Your task to perform on an android device: turn on notifications settings in the gmail app Image 0: 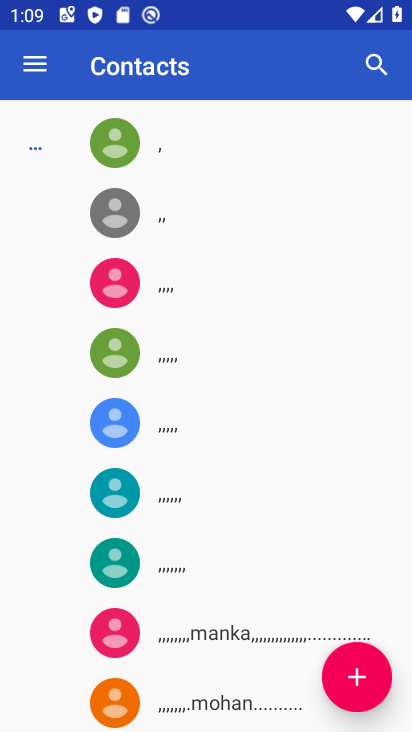
Step 0: press home button
Your task to perform on an android device: turn on notifications settings in the gmail app Image 1: 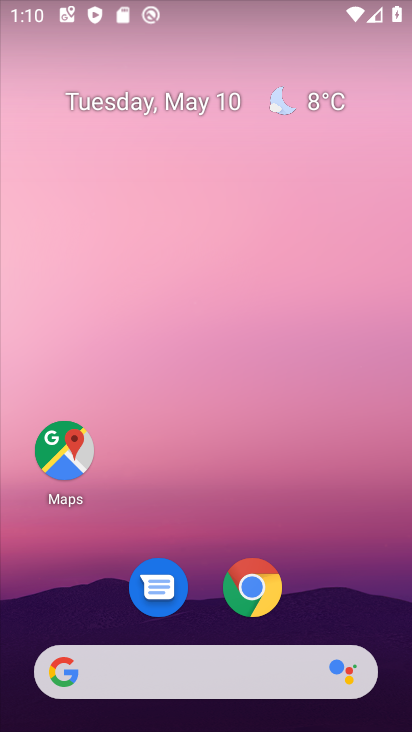
Step 1: drag from (311, 552) to (245, 152)
Your task to perform on an android device: turn on notifications settings in the gmail app Image 2: 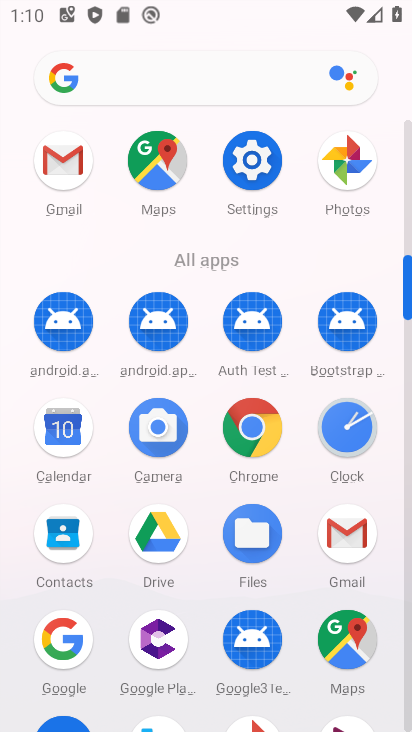
Step 2: drag from (359, 523) to (286, 329)
Your task to perform on an android device: turn on notifications settings in the gmail app Image 3: 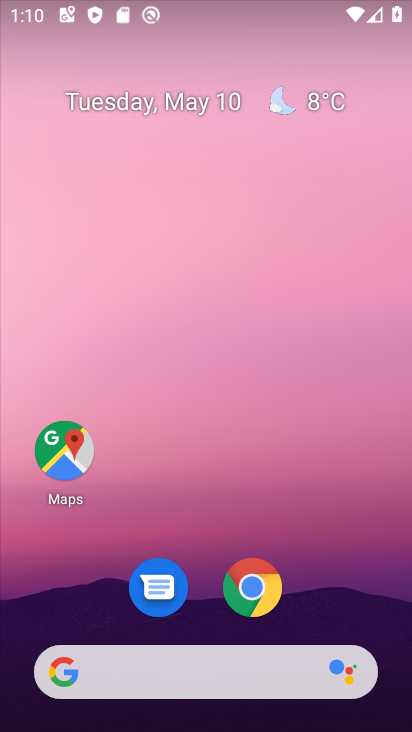
Step 3: drag from (328, 587) to (264, 73)
Your task to perform on an android device: turn on notifications settings in the gmail app Image 4: 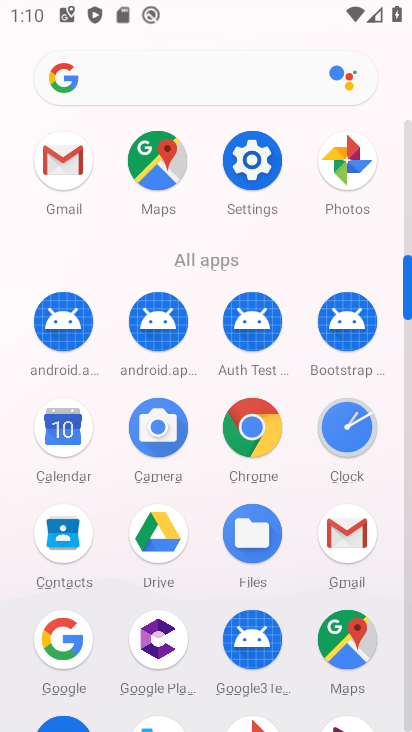
Step 4: click (351, 520)
Your task to perform on an android device: turn on notifications settings in the gmail app Image 5: 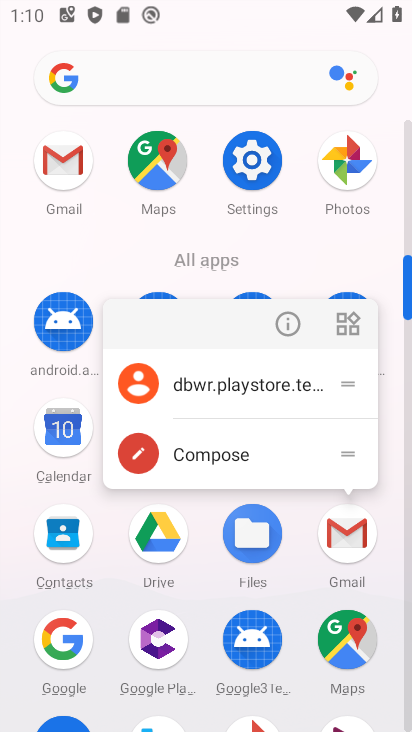
Step 5: click (297, 333)
Your task to perform on an android device: turn on notifications settings in the gmail app Image 6: 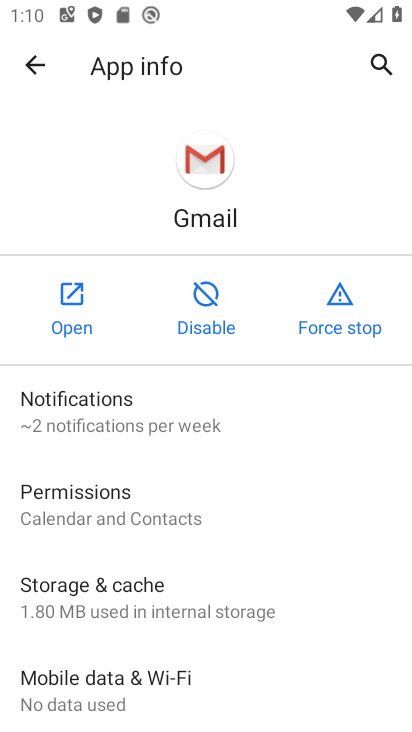
Step 6: click (167, 401)
Your task to perform on an android device: turn on notifications settings in the gmail app Image 7: 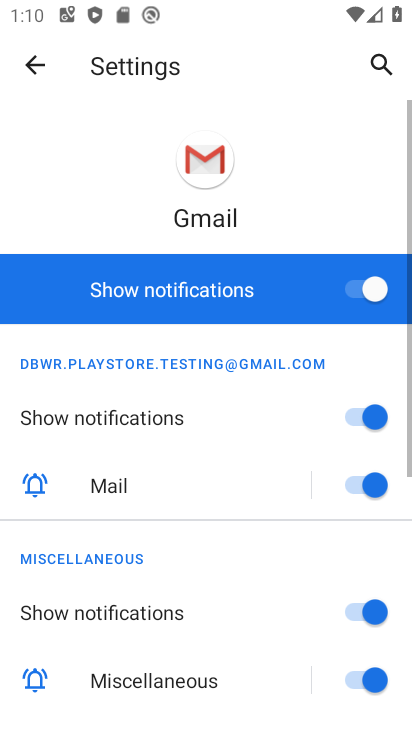
Step 7: task complete